Your task to perform on an android device: Check the weather Image 0: 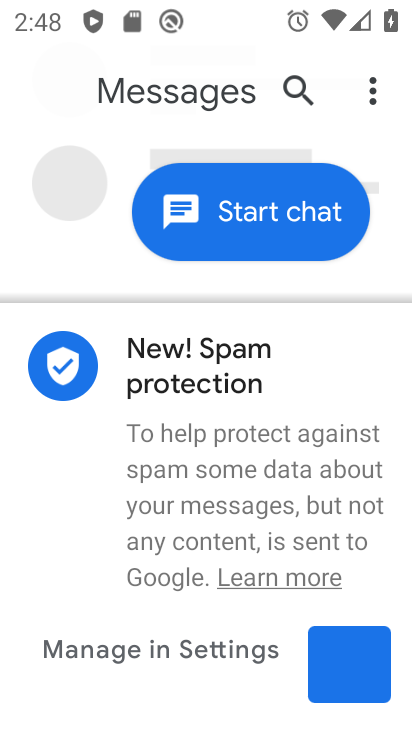
Step 0: press home button
Your task to perform on an android device: Check the weather Image 1: 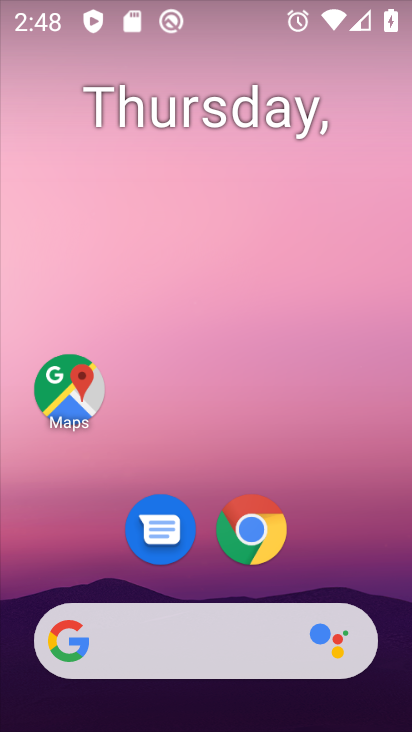
Step 1: click (220, 653)
Your task to perform on an android device: Check the weather Image 2: 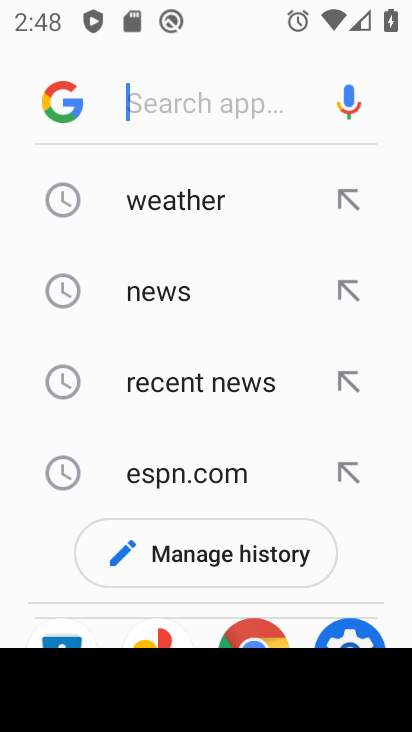
Step 2: click (230, 203)
Your task to perform on an android device: Check the weather Image 3: 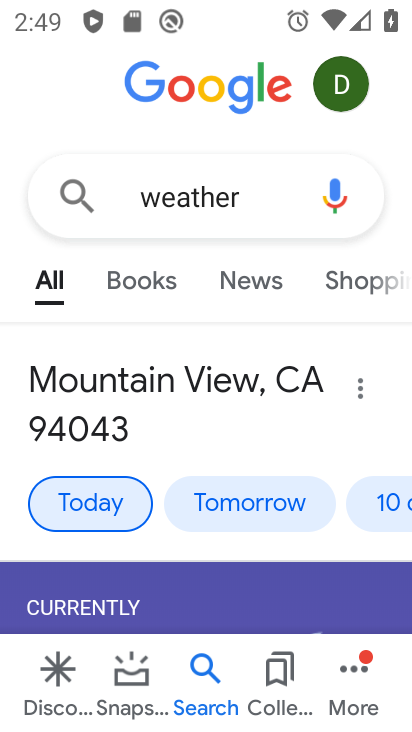
Step 3: task complete